Your task to perform on an android device: Clear the cart on target. Add logitech g933 to the cart on target Image 0: 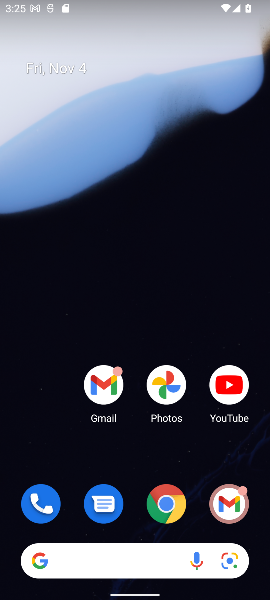
Step 0: click (179, 509)
Your task to perform on an android device: Clear the cart on target. Add logitech g933 to the cart on target Image 1: 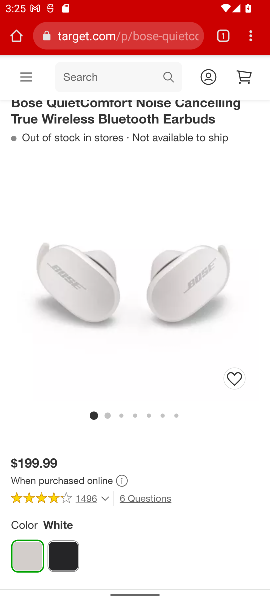
Step 1: click (241, 67)
Your task to perform on an android device: Clear the cart on target. Add logitech g933 to the cart on target Image 2: 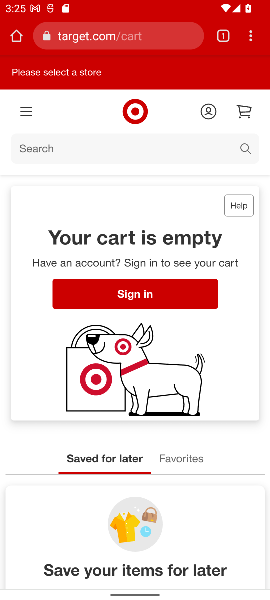
Step 2: click (236, 151)
Your task to perform on an android device: Clear the cart on target. Add logitech g933 to the cart on target Image 3: 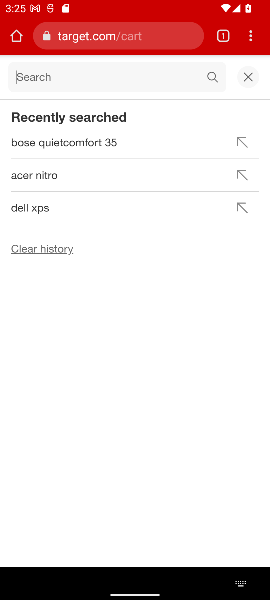
Step 3: type "logitech g933 "
Your task to perform on an android device: Clear the cart on target. Add logitech g933 to the cart on target Image 4: 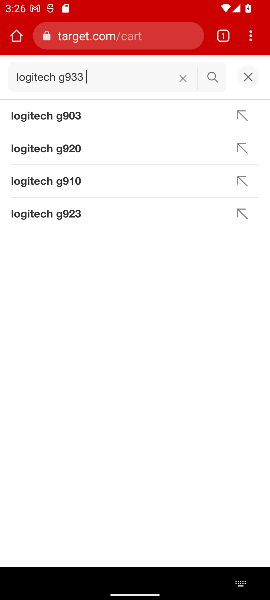
Step 4: click (214, 78)
Your task to perform on an android device: Clear the cart on target. Add logitech g933 to the cart on target Image 5: 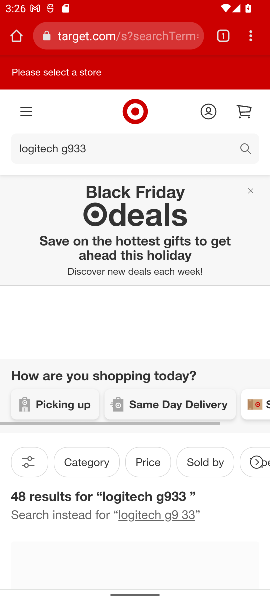
Step 5: task complete